Your task to perform on an android device: toggle notifications settings in the gmail app Image 0: 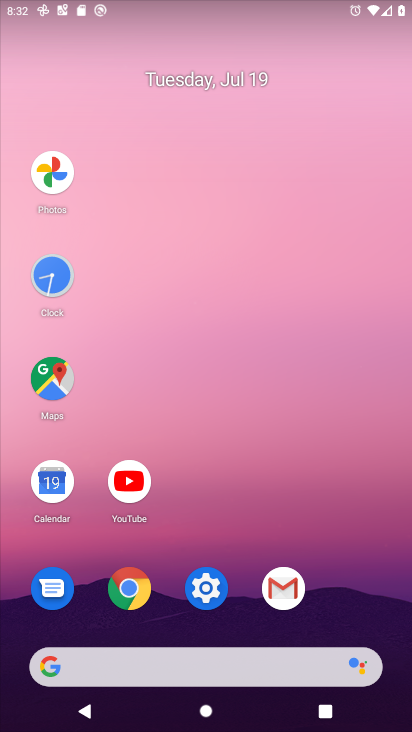
Step 0: click (288, 592)
Your task to perform on an android device: toggle notifications settings in the gmail app Image 1: 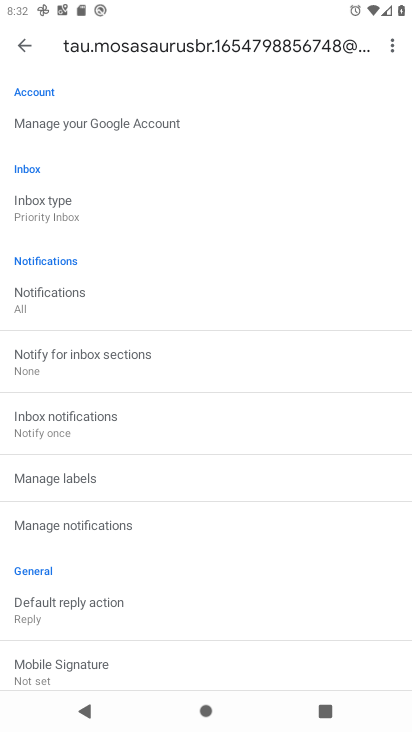
Step 1: click (25, 45)
Your task to perform on an android device: toggle notifications settings in the gmail app Image 2: 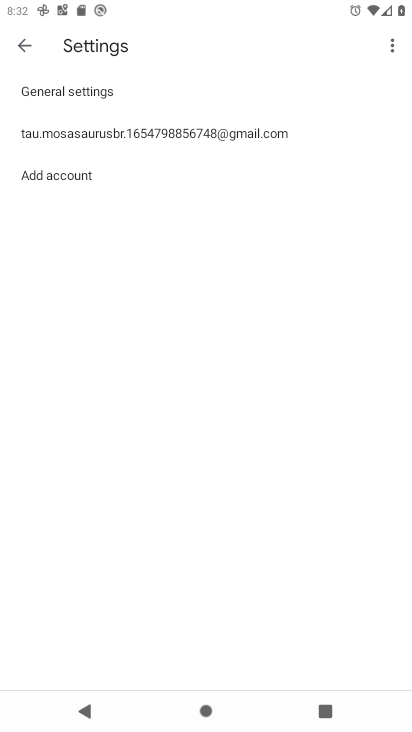
Step 2: click (52, 83)
Your task to perform on an android device: toggle notifications settings in the gmail app Image 3: 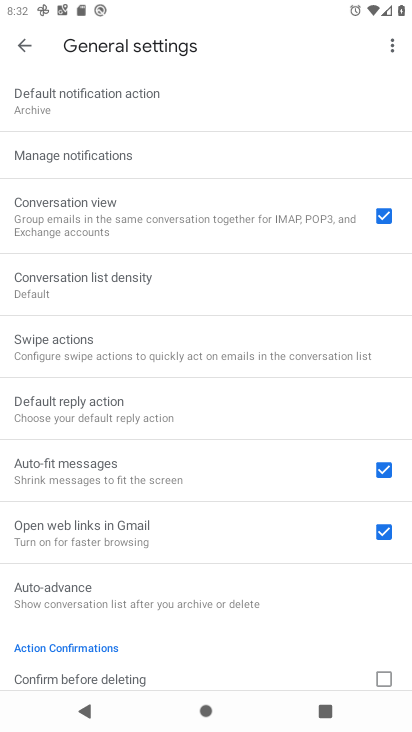
Step 3: click (80, 161)
Your task to perform on an android device: toggle notifications settings in the gmail app Image 4: 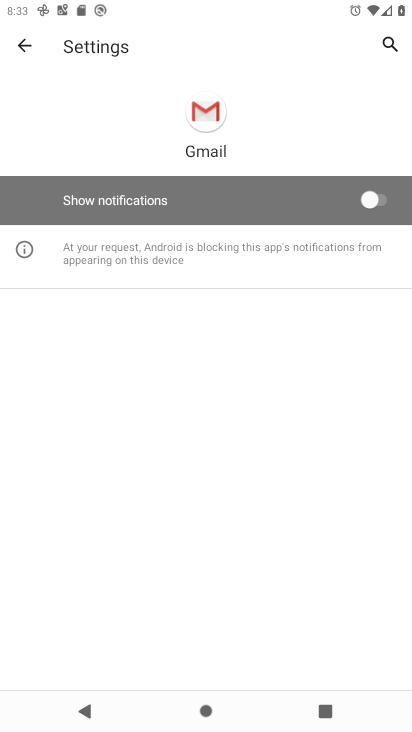
Step 4: click (362, 203)
Your task to perform on an android device: toggle notifications settings in the gmail app Image 5: 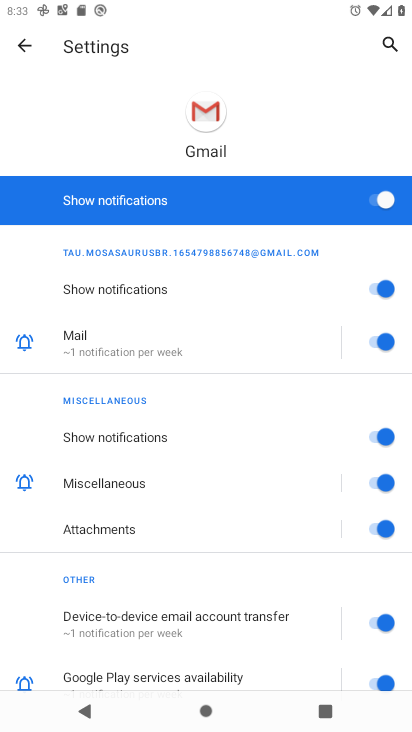
Step 5: task complete